Your task to perform on an android device: Go to accessibility settings Image 0: 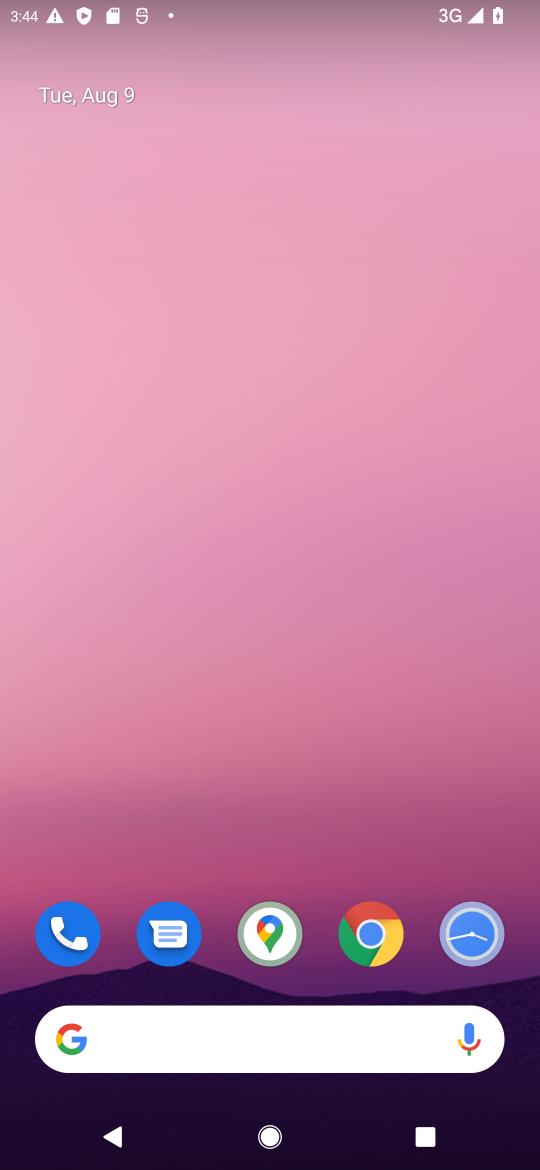
Step 0: drag from (323, 1003) to (370, 127)
Your task to perform on an android device: Go to accessibility settings Image 1: 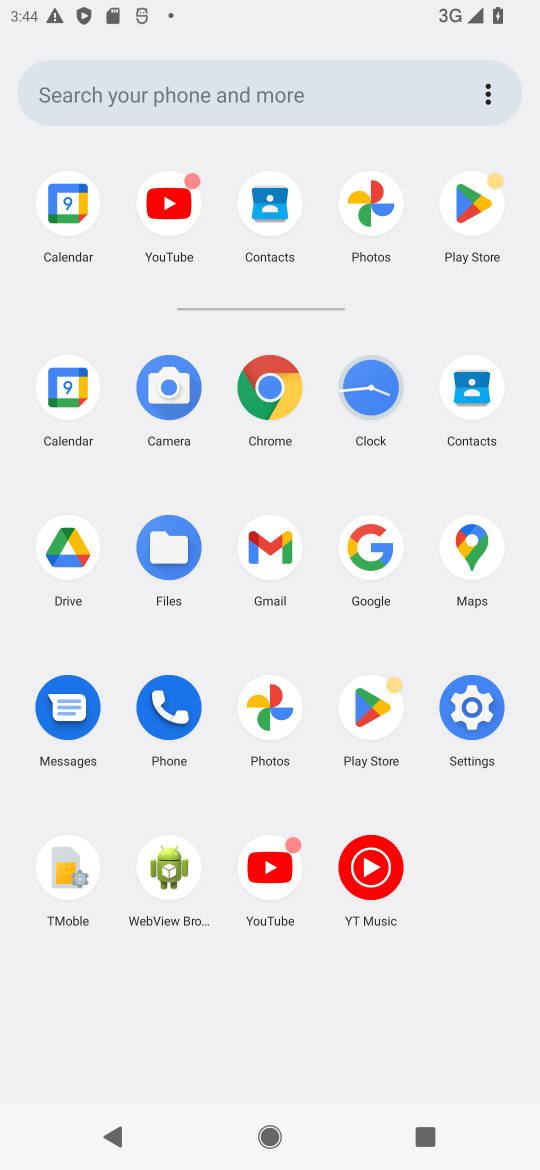
Step 1: click (463, 744)
Your task to perform on an android device: Go to accessibility settings Image 2: 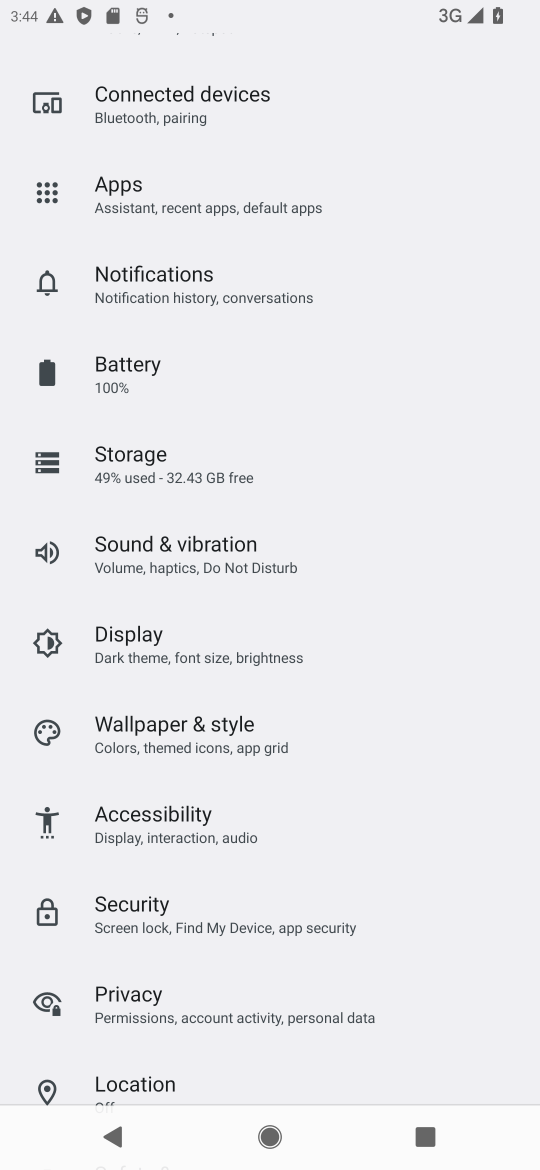
Step 2: drag from (205, 1017) to (211, 566)
Your task to perform on an android device: Go to accessibility settings Image 3: 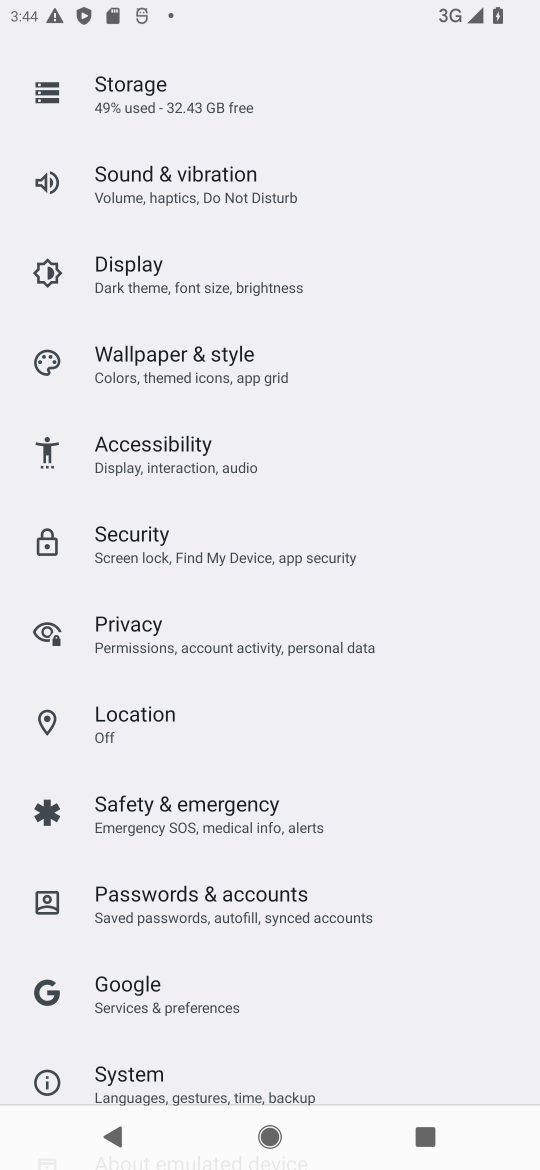
Step 3: drag from (242, 1028) to (268, 653)
Your task to perform on an android device: Go to accessibility settings Image 4: 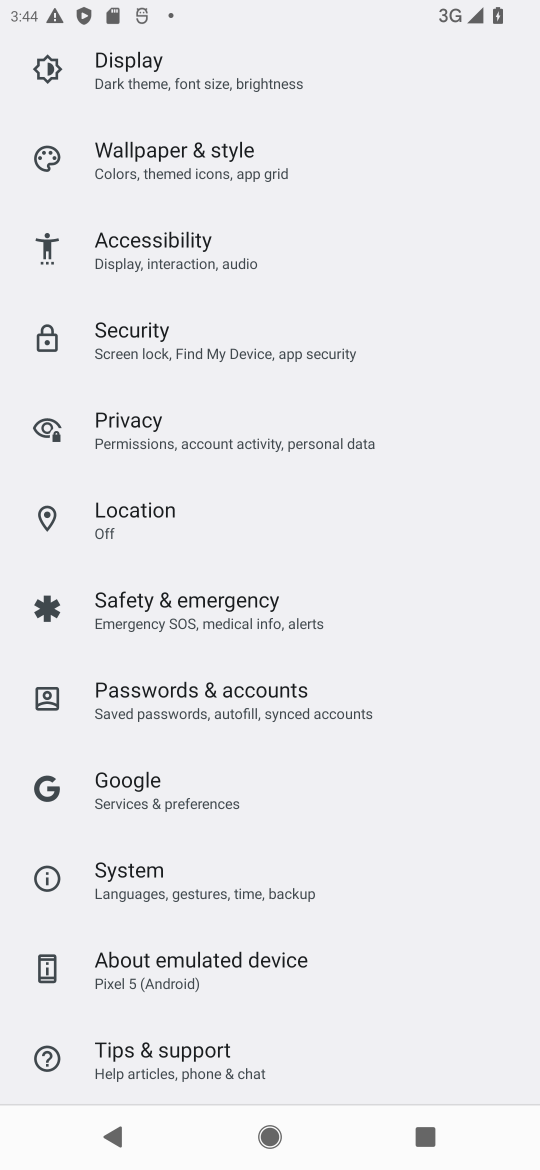
Step 4: click (172, 275)
Your task to perform on an android device: Go to accessibility settings Image 5: 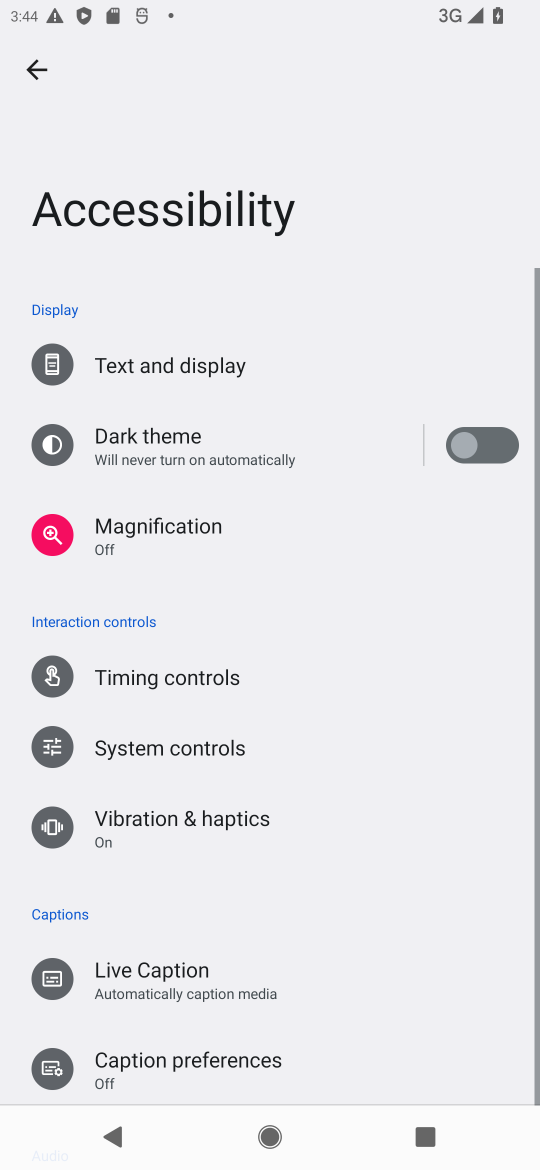
Step 5: task complete